Your task to perform on an android device: empty trash in the gmail app Image 0: 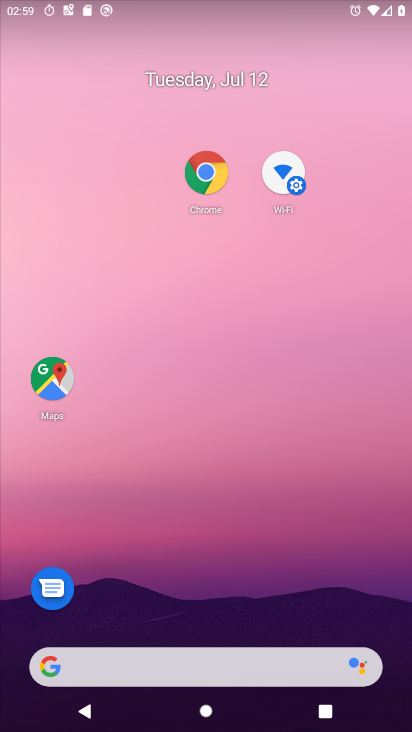
Step 0: drag from (147, 611) to (235, 46)
Your task to perform on an android device: empty trash in the gmail app Image 1: 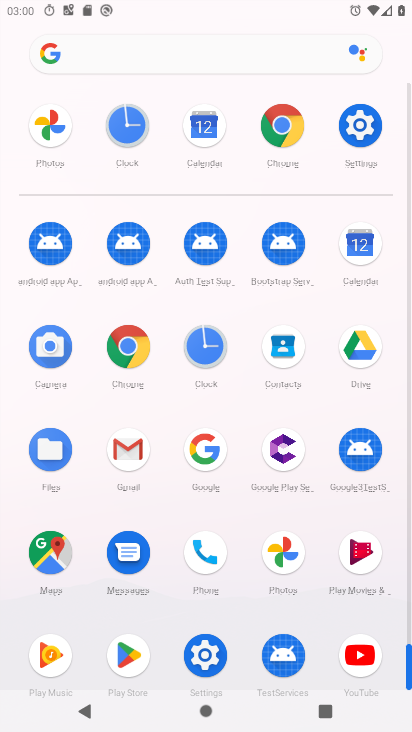
Step 1: click (126, 452)
Your task to perform on an android device: empty trash in the gmail app Image 2: 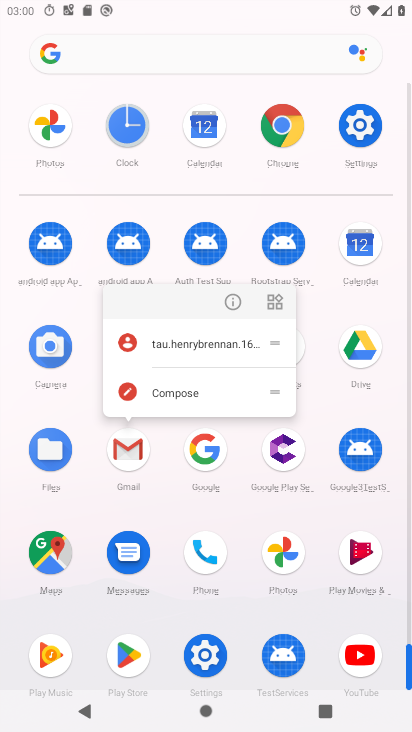
Step 2: click (226, 307)
Your task to perform on an android device: empty trash in the gmail app Image 3: 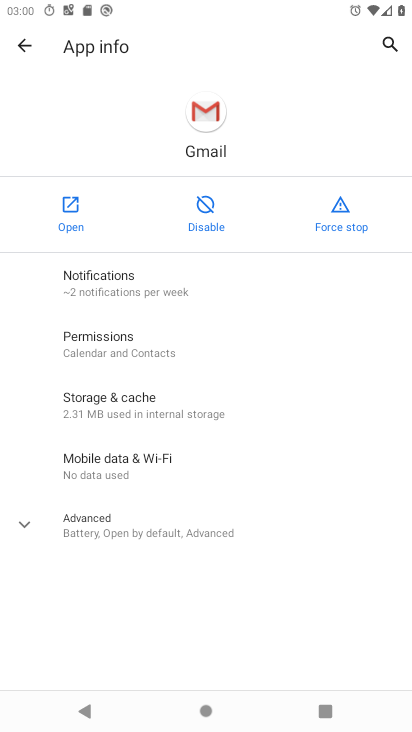
Step 3: click (81, 225)
Your task to perform on an android device: empty trash in the gmail app Image 4: 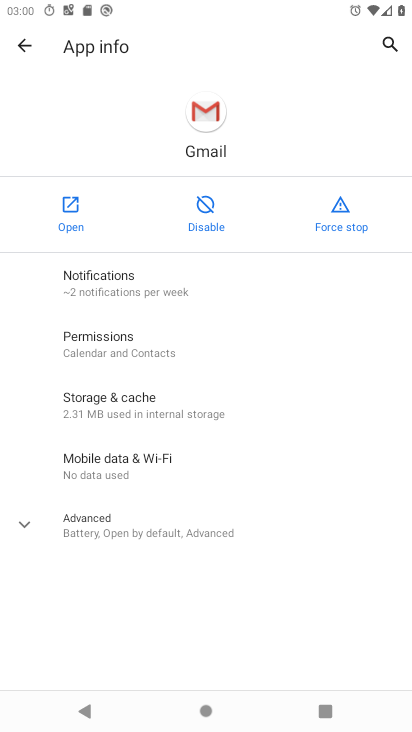
Step 4: click (80, 224)
Your task to perform on an android device: empty trash in the gmail app Image 5: 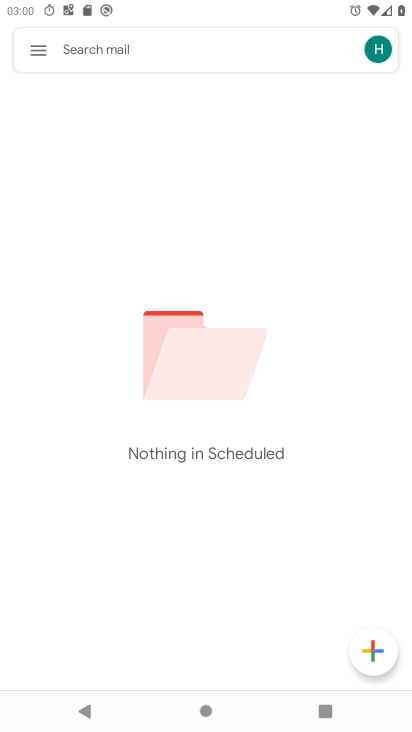
Step 5: drag from (223, 561) to (196, 363)
Your task to perform on an android device: empty trash in the gmail app Image 6: 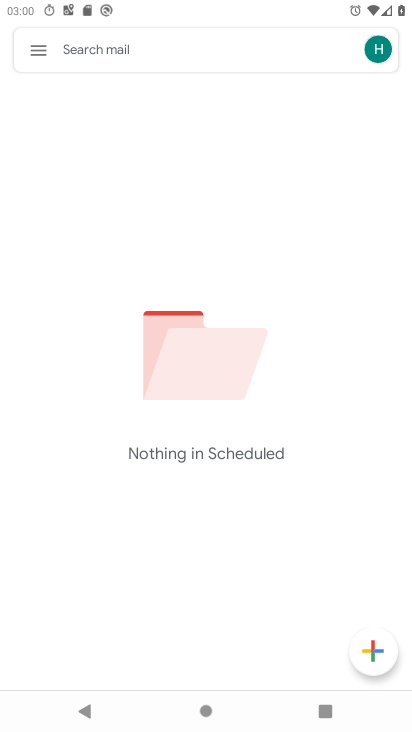
Step 6: click (31, 48)
Your task to perform on an android device: empty trash in the gmail app Image 7: 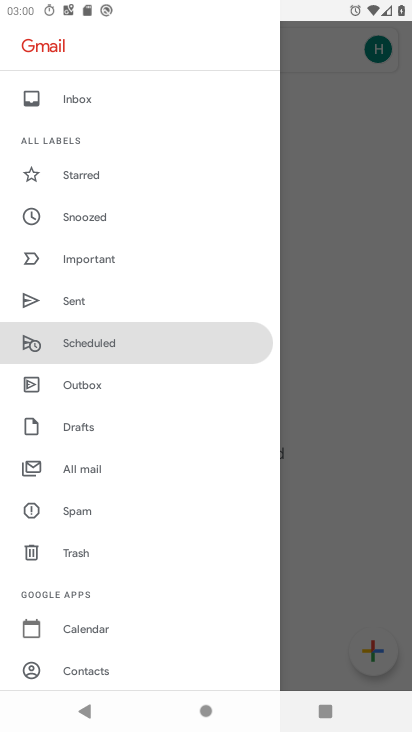
Step 7: click (67, 549)
Your task to perform on an android device: empty trash in the gmail app Image 8: 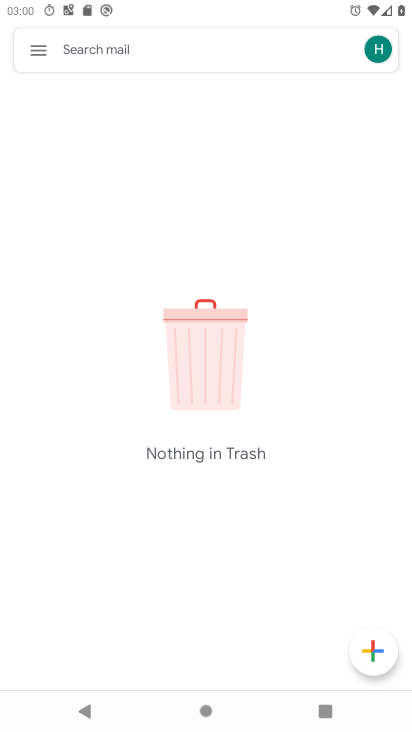
Step 8: drag from (163, 582) to (229, 222)
Your task to perform on an android device: empty trash in the gmail app Image 9: 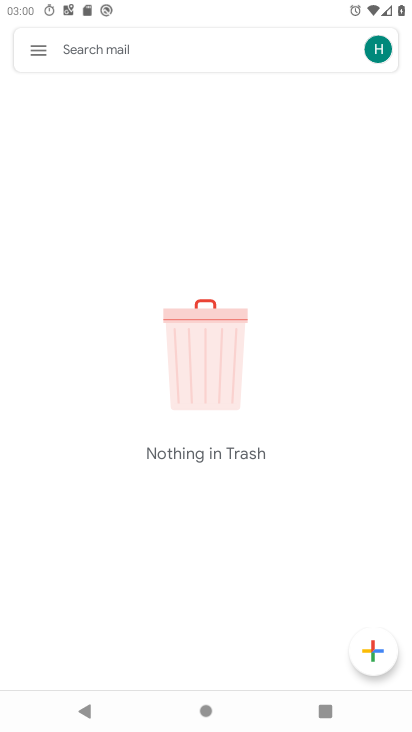
Step 9: click (34, 60)
Your task to perform on an android device: empty trash in the gmail app Image 10: 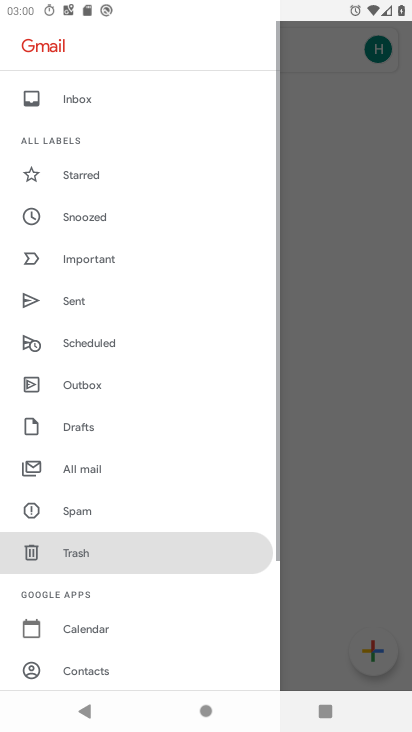
Step 10: click (110, 559)
Your task to perform on an android device: empty trash in the gmail app Image 11: 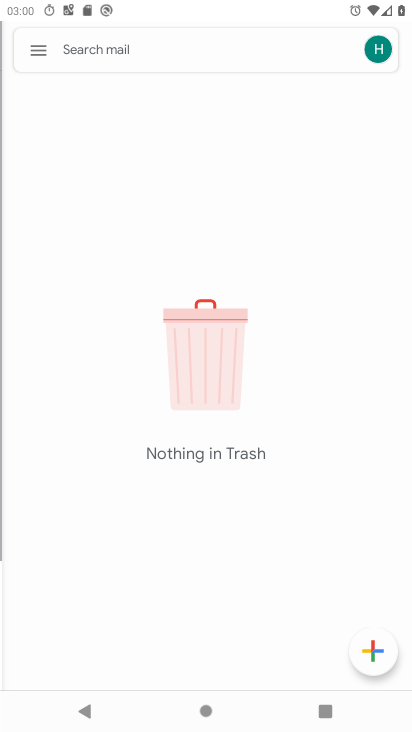
Step 11: click (348, 533)
Your task to perform on an android device: empty trash in the gmail app Image 12: 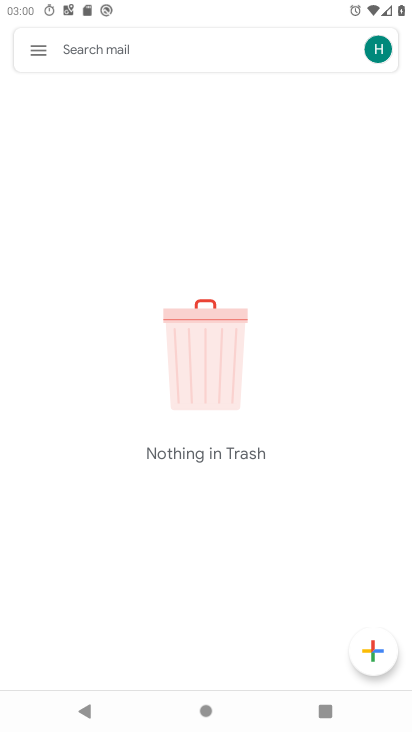
Step 12: task complete